Your task to perform on an android device: open chrome privacy settings Image 0: 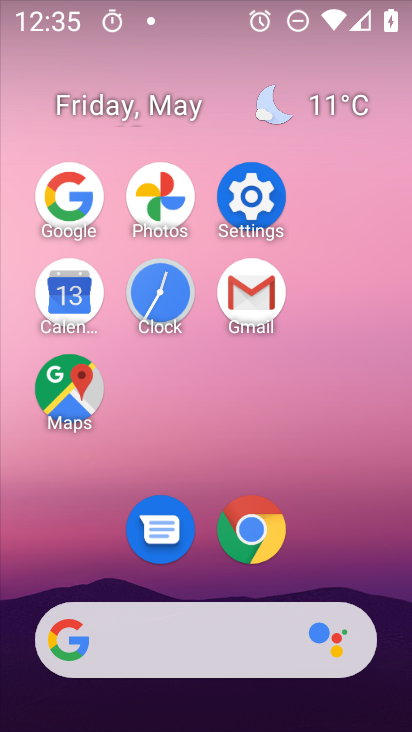
Step 0: click (280, 518)
Your task to perform on an android device: open chrome privacy settings Image 1: 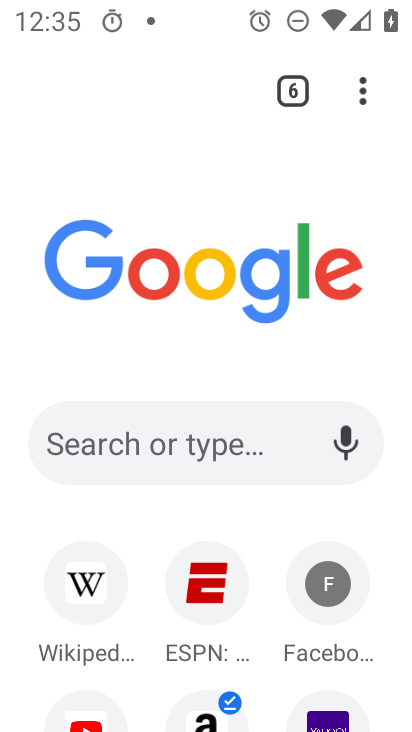
Step 1: click (384, 76)
Your task to perform on an android device: open chrome privacy settings Image 2: 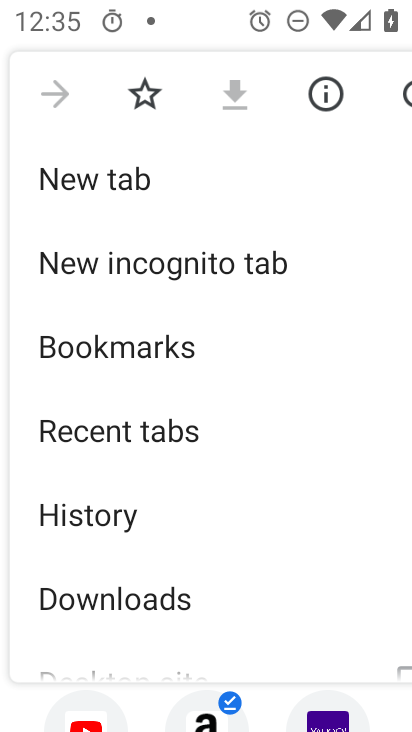
Step 2: drag from (215, 551) to (241, 163)
Your task to perform on an android device: open chrome privacy settings Image 3: 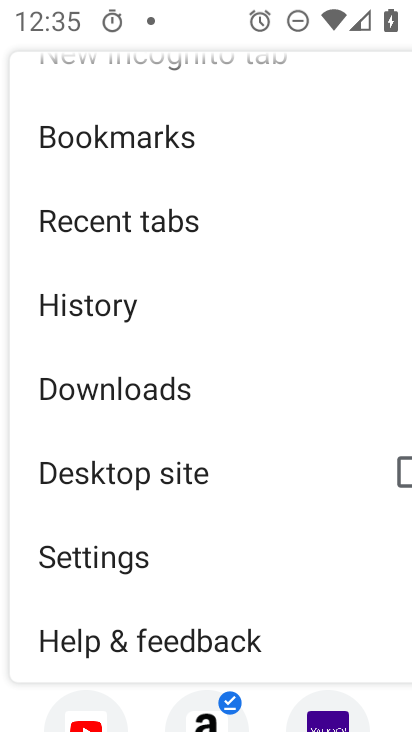
Step 3: click (146, 544)
Your task to perform on an android device: open chrome privacy settings Image 4: 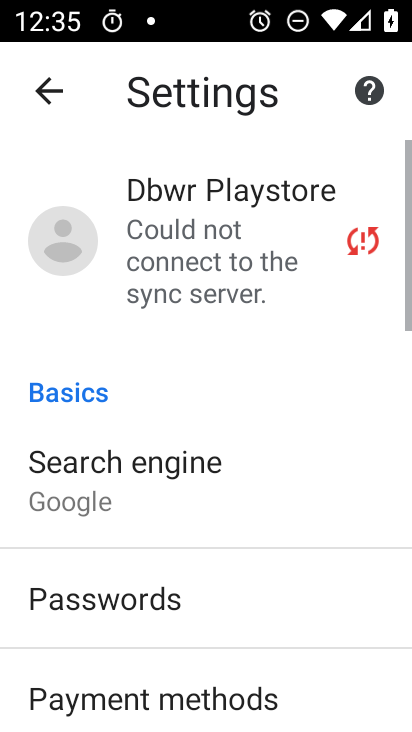
Step 4: drag from (140, 521) to (147, 170)
Your task to perform on an android device: open chrome privacy settings Image 5: 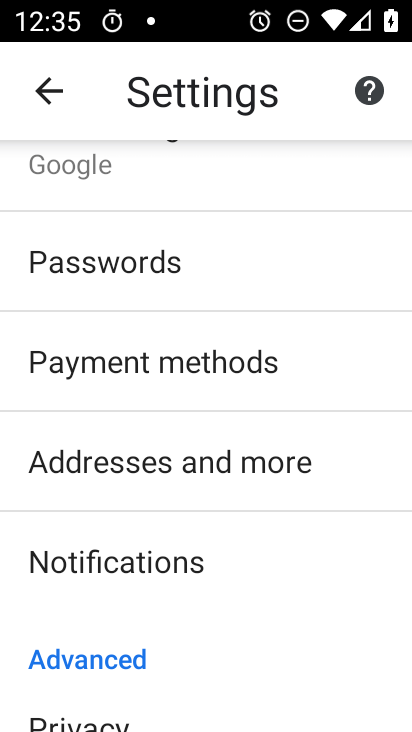
Step 5: drag from (178, 624) to (232, 192)
Your task to perform on an android device: open chrome privacy settings Image 6: 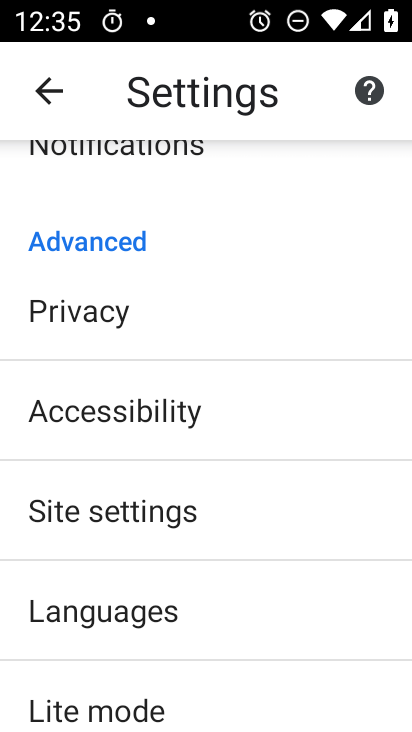
Step 6: click (168, 296)
Your task to perform on an android device: open chrome privacy settings Image 7: 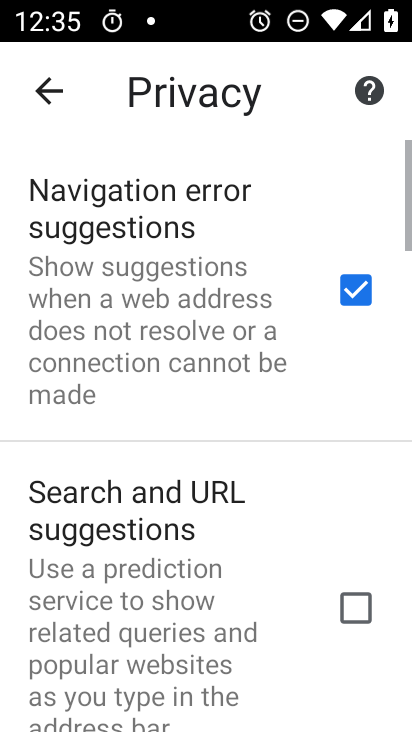
Step 7: task complete